Your task to perform on an android device: Go to Amazon Image 0: 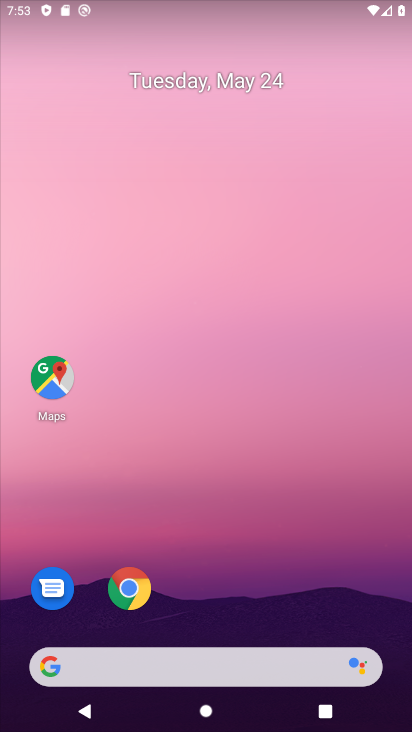
Step 0: drag from (211, 633) to (349, 2)
Your task to perform on an android device: Go to Amazon Image 1: 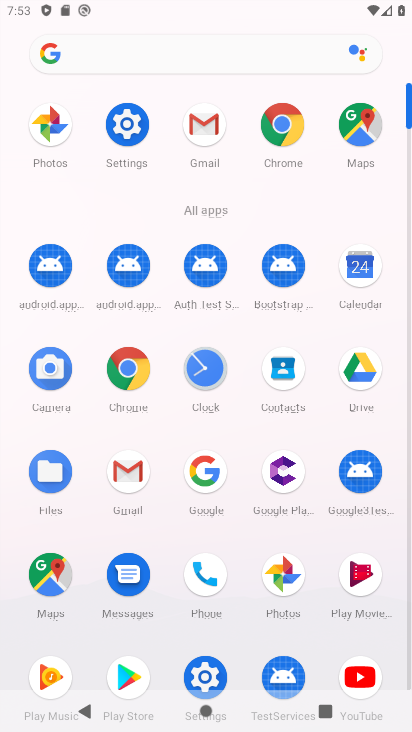
Step 1: click (284, 120)
Your task to perform on an android device: Go to Amazon Image 2: 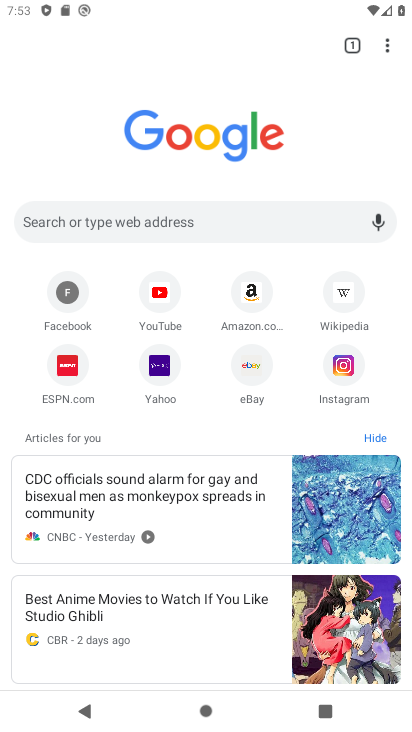
Step 2: click (258, 303)
Your task to perform on an android device: Go to Amazon Image 3: 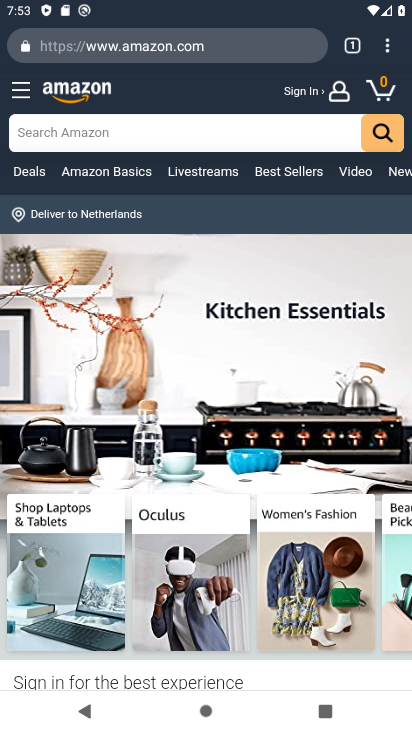
Step 3: task complete